Your task to perform on an android device: turn on the 24-hour format for clock Image 0: 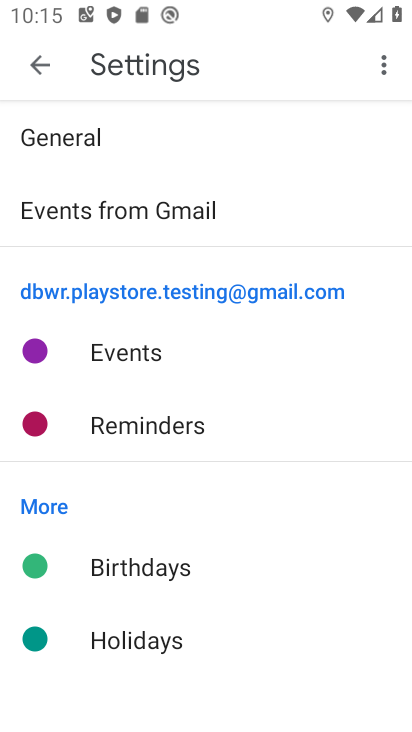
Step 0: press home button
Your task to perform on an android device: turn on the 24-hour format for clock Image 1: 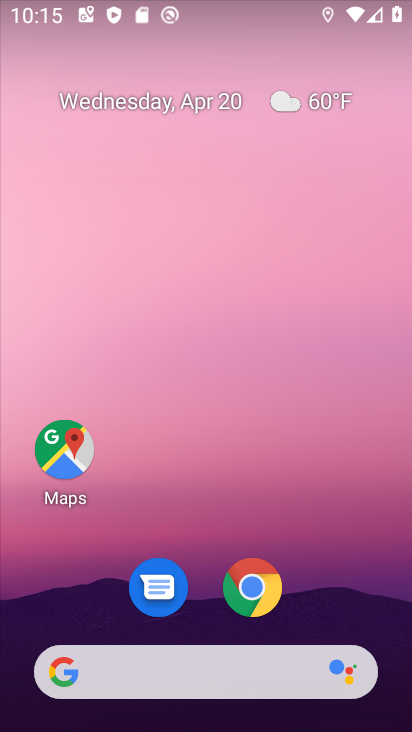
Step 1: drag from (293, 510) to (131, 191)
Your task to perform on an android device: turn on the 24-hour format for clock Image 2: 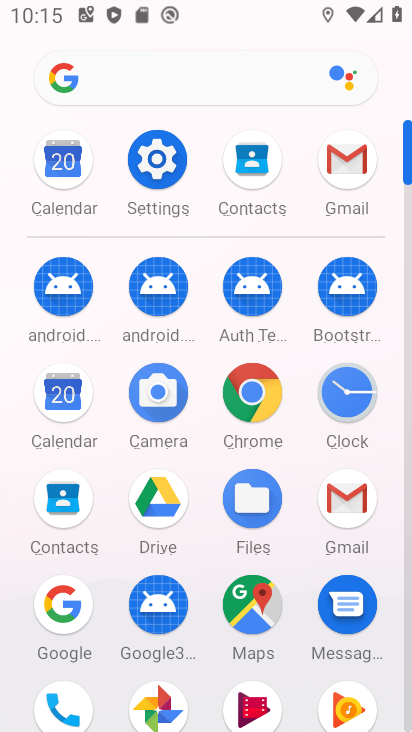
Step 2: click (357, 385)
Your task to perform on an android device: turn on the 24-hour format for clock Image 3: 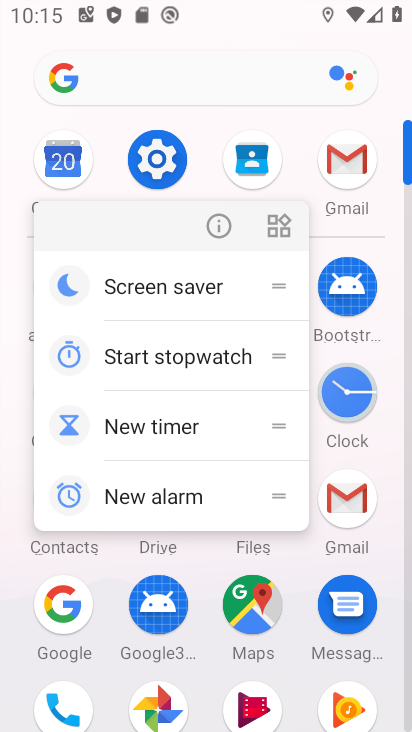
Step 3: click (358, 397)
Your task to perform on an android device: turn on the 24-hour format for clock Image 4: 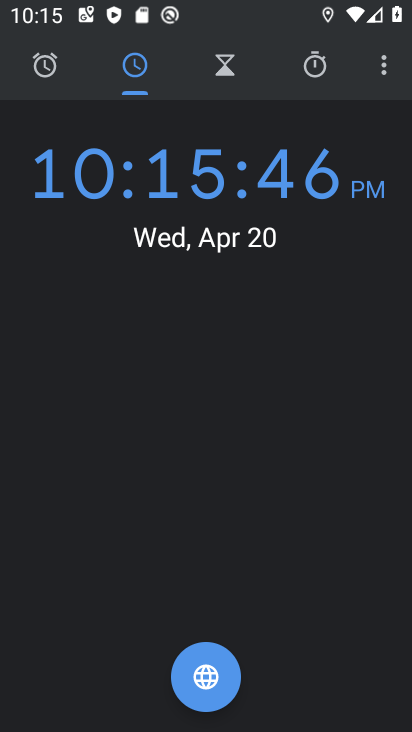
Step 4: click (383, 66)
Your task to perform on an android device: turn on the 24-hour format for clock Image 5: 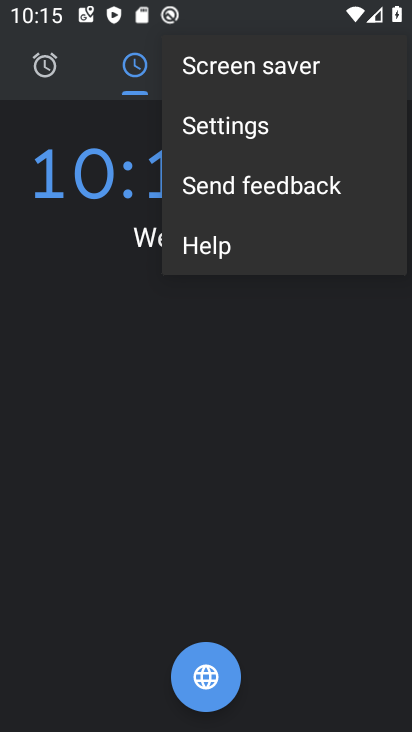
Step 5: click (251, 122)
Your task to perform on an android device: turn on the 24-hour format for clock Image 6: 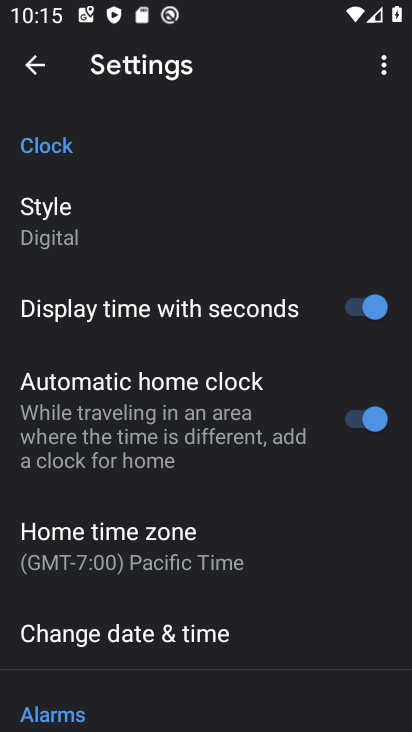
Step 6: click (174, 626)
Your task to perform on an android device: turn on the 24-hour format for clock Image 7: 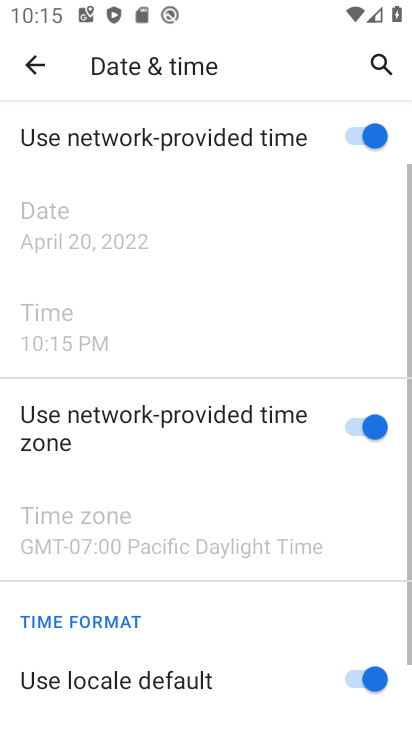
Step 7: drag from (168, 633) to (149, 225)
Your task to perform on an android device: turn on the 24-hour format for clock Image 8: 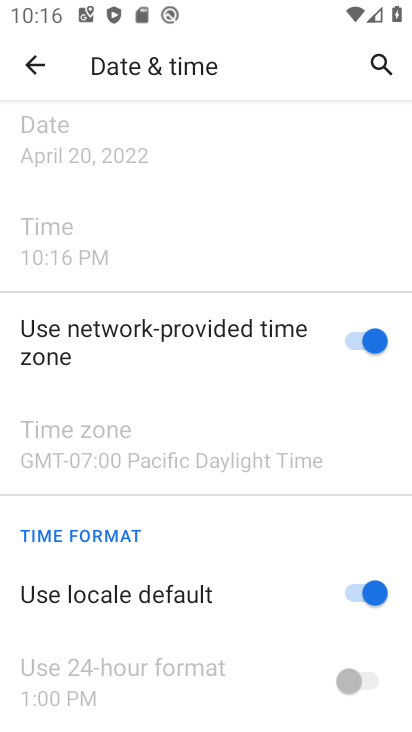
Step 8: click (368, 593)
Your task to perform on an android device: turn on the 24-hour format for clock Image 9: 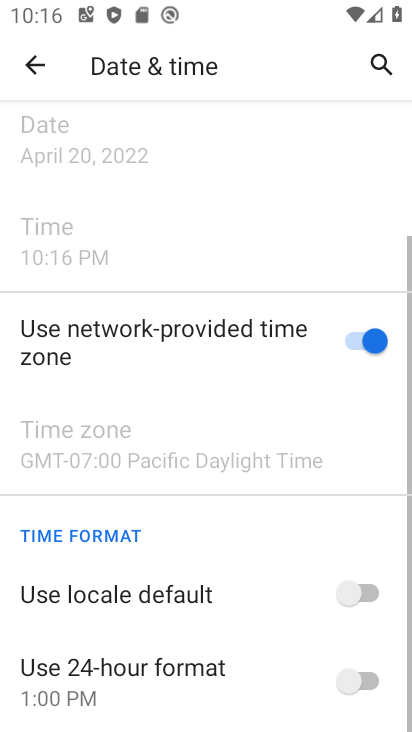
Step 9: click (355, 681)
Your task to perform on an android device: turn on the 24-hour format for clock Image 10: 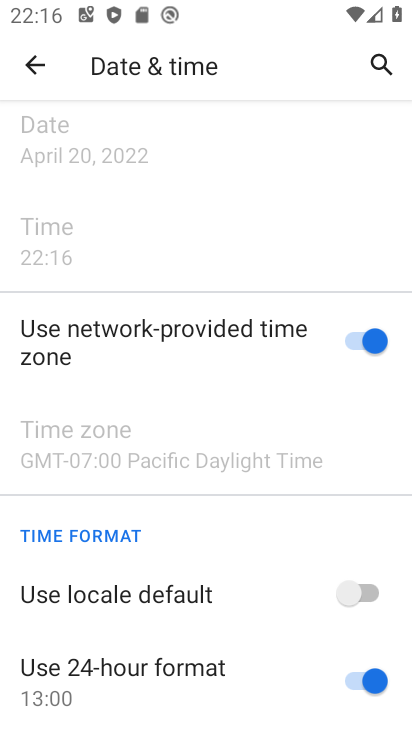
Step 10: task complete